Your task to perform on an android device: Open calendar and show me the second week of next month Image 0: 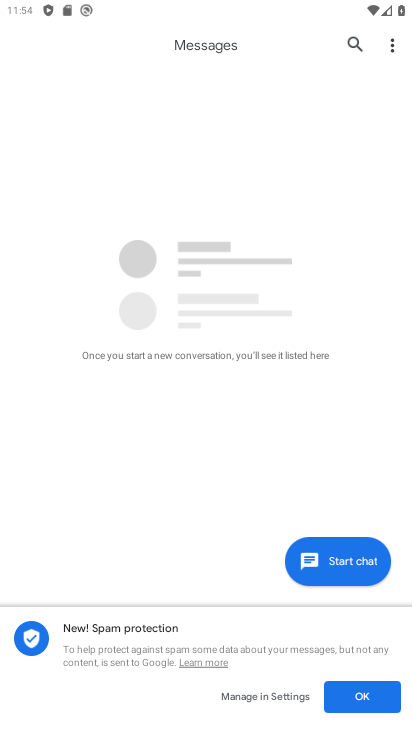
Step 0: press home button
Your task to perform on an android device: Open calendar and show me the second week of next month Image 1: 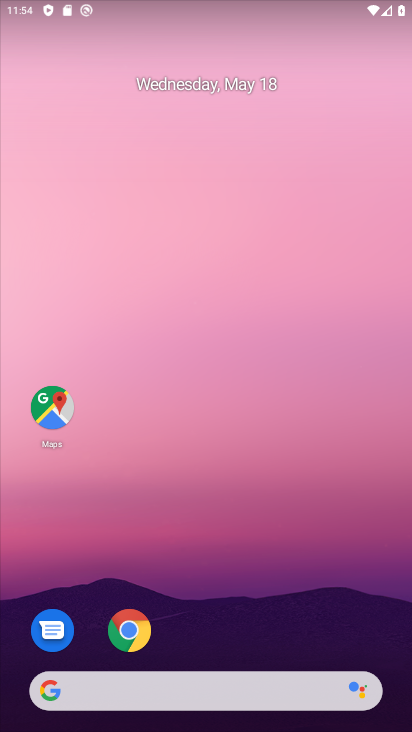
Step 1: drag from (192, 590) to (208, 174)
Your task to perform on an android device: Open calendar and show me the second week of next month Image 2: 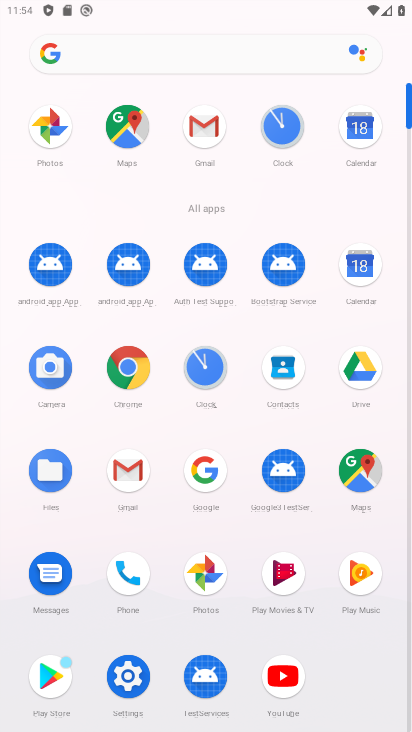
Step 2: click (361, 274)
Your task to perform on an android device: Open calendar and show me the second week of next month Image 3: 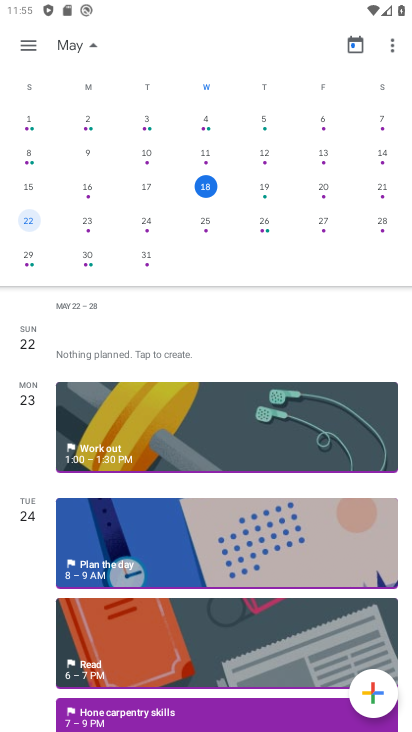
Step 3: drag from (397, 198) to (0, 198)
Your task to perform on an android device: Open calendar and show me the second week of next month Image 4: 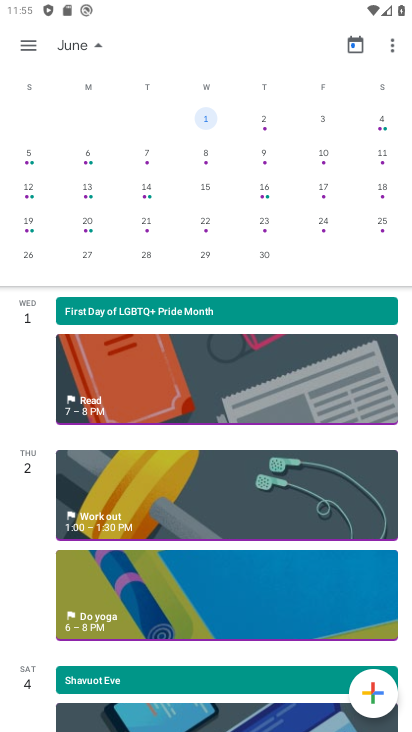
Step 4: click (203, 160)
Your task to perform on an android device: Open calendar and show me the second week of next month Image 5: 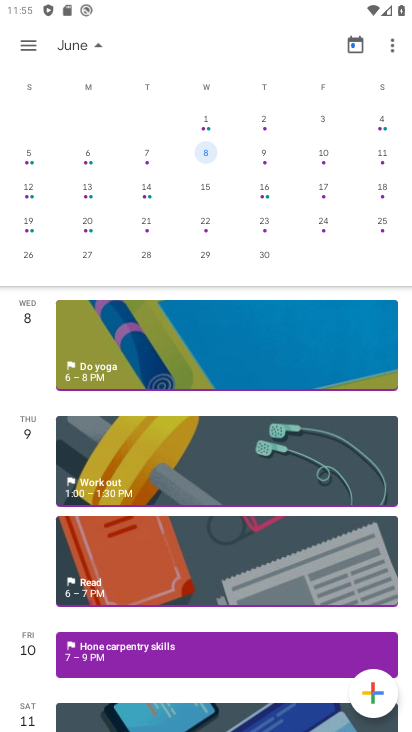
Step 5: click (256, 159)
Your task to perform on an android device: Open calendar and show me the second week of next month Image 6: 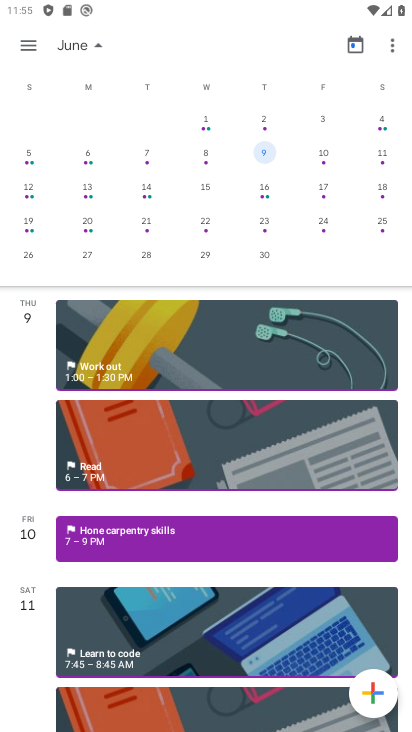
Step 6: click (38, 42)
Your task to perform on an android device: Open calendar and show me the second week of next month Image 7: 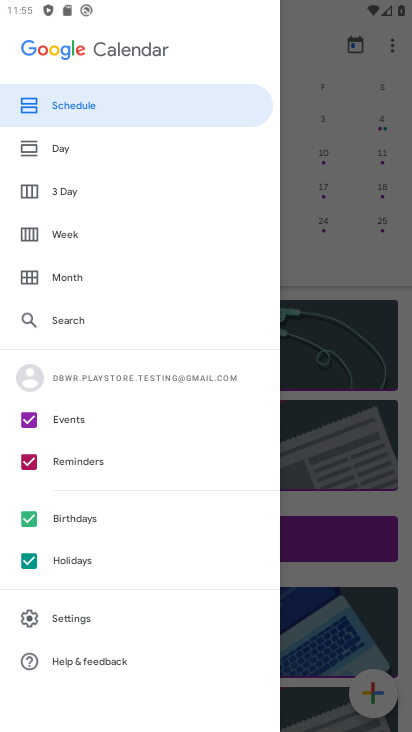
Step 7: click (89, 234)
Your task to perform on an android device: Open calendar and show me the second week of next month Image 8: 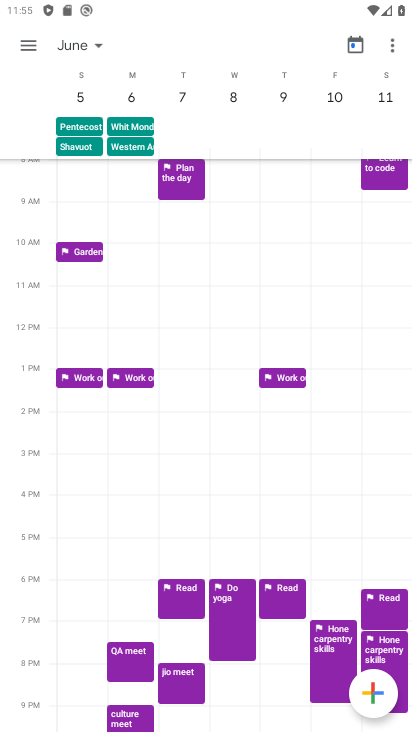
Step 8: task complete